Your task to perform on an android device: change text size in settings app Image 0: 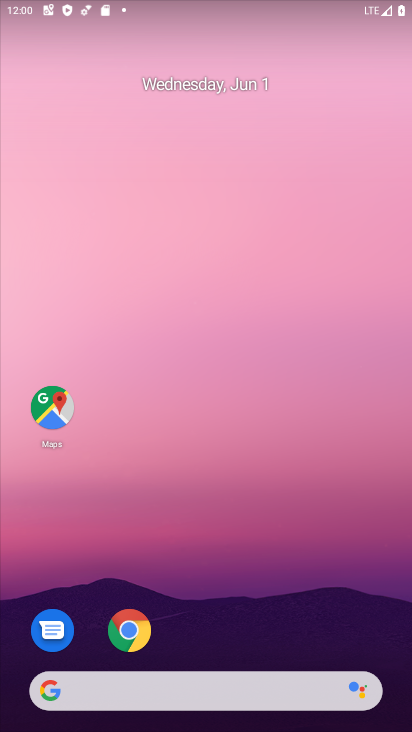
Step 0: drag from (296, 629) to (276, 144)
Your task to perform on an android device: change text size in settings app Image 1: 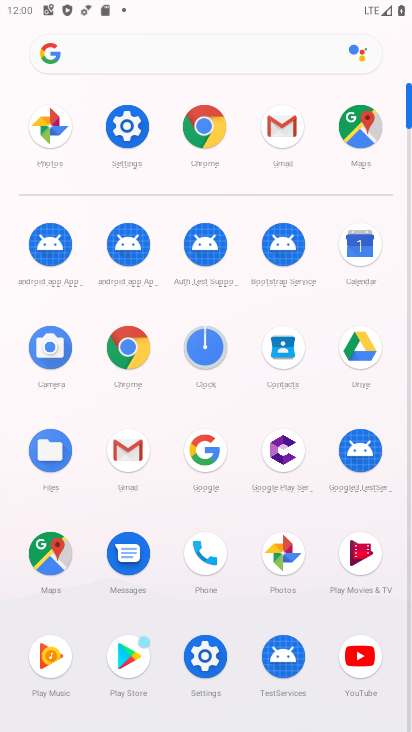
Step 1: click (123, 121)
Your task to perform on an android device: change text size in settings app Image 2: 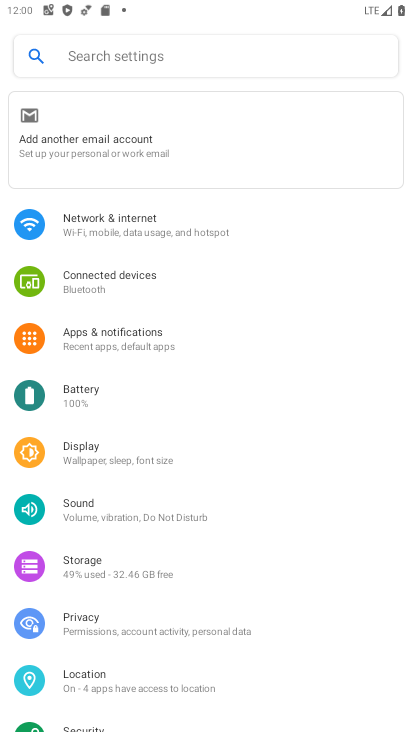
Step 2: click (103, 453)
Your task to perform on an android device: change text size in settings app Image 3: 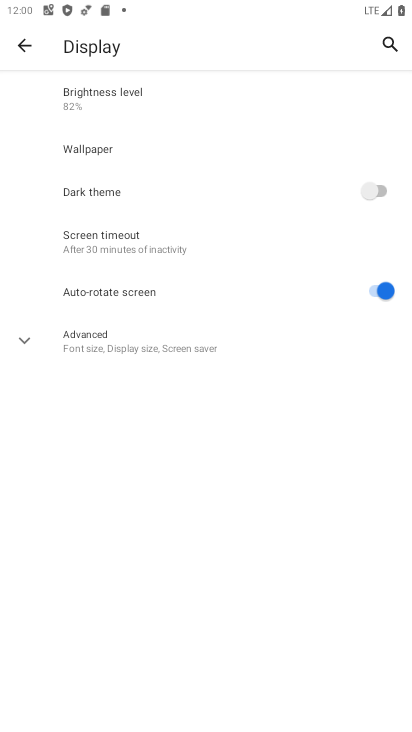
Step 3: click (24, 339)
Your task to perform on an android device: change text size in settings app Image 4: 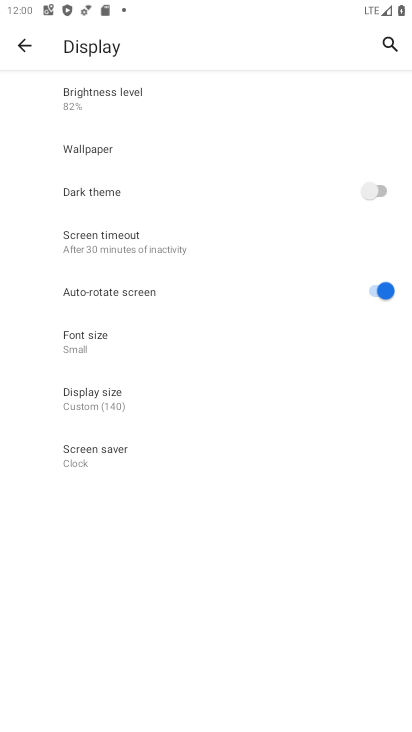
Step 4: click (104, 336)
Your task to perform on an android device: change text size in settings app Image 5: 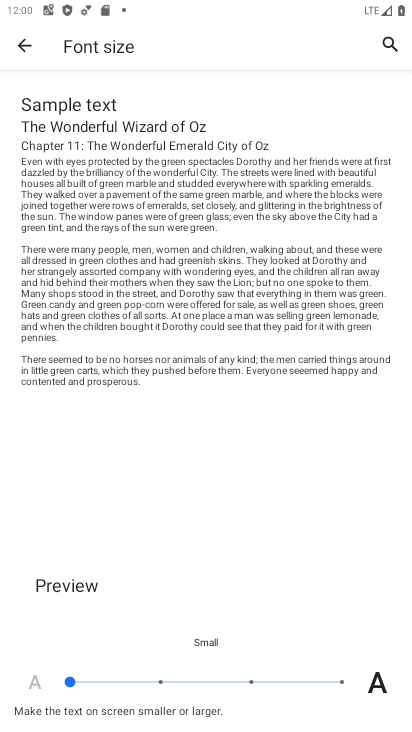
Step 5: click (160, 680)
Your task to perform on an android device: change text size in settings app Image 6: 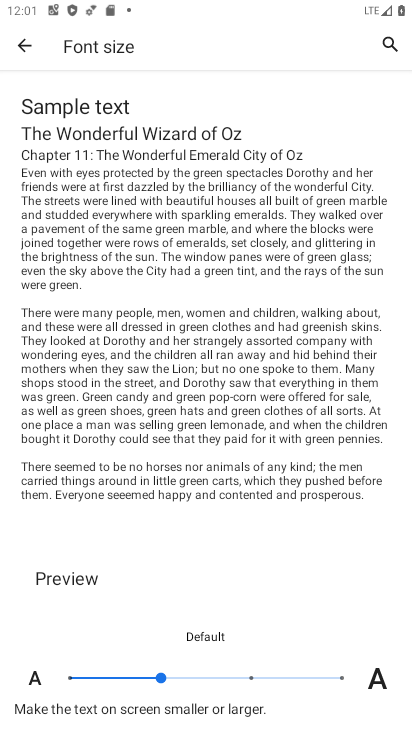
Step 6: task complete